Your task to perform on an android device: change the clock display to digital Image 0: 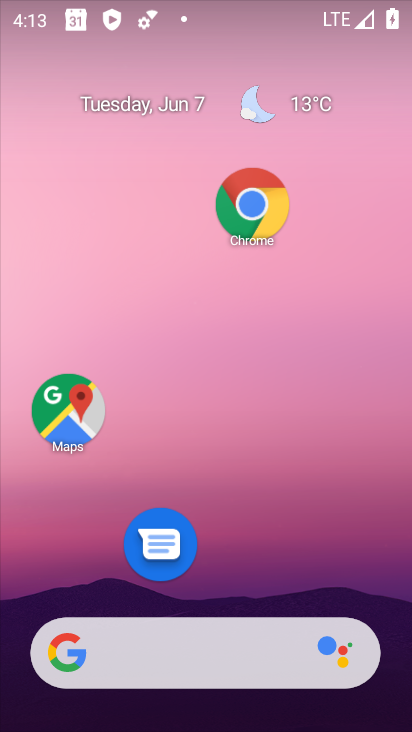
Step 0: drag from (253, 587) to (261, 26)
Your task to perform on an android device: change the clock display to digital Image 1: 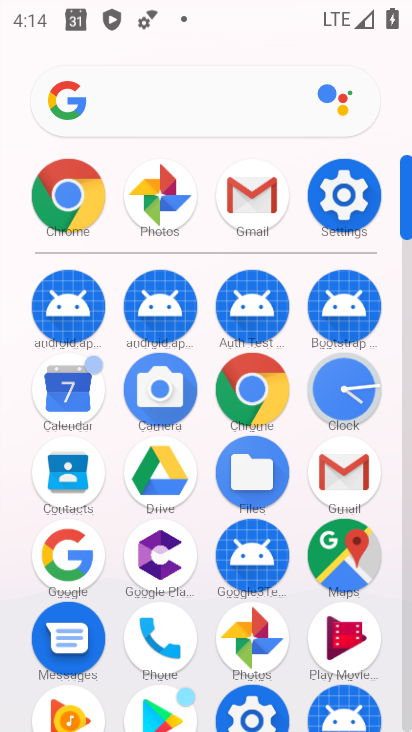
Step 1: click (342, 382)
Your task to perform on an android device: change the clock display to digital Image 2: 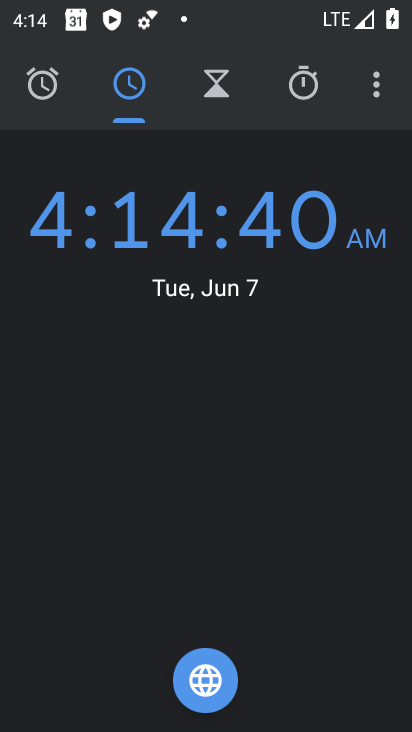
Step 2: click (378, 84)
Your task to perform on an android device: change the clock display to digital Image 3: 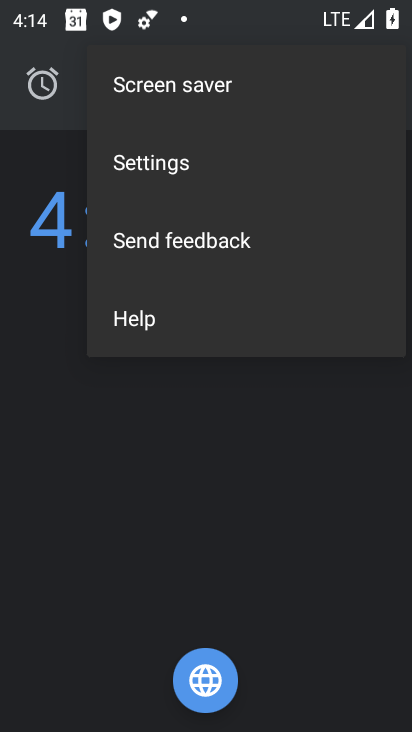
Step 3: click (201, 162)
Your task to perform on an android device: change the clock display to digital Image 4: 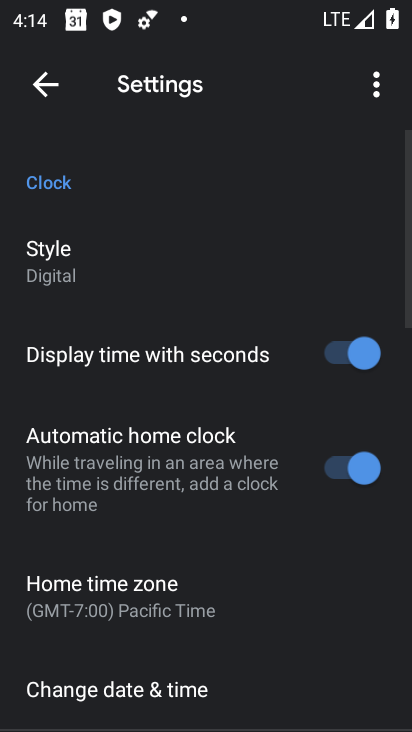
Step 4: click (119, 257)
Your task to perform on an android device: change the clock display to digital Image 5: 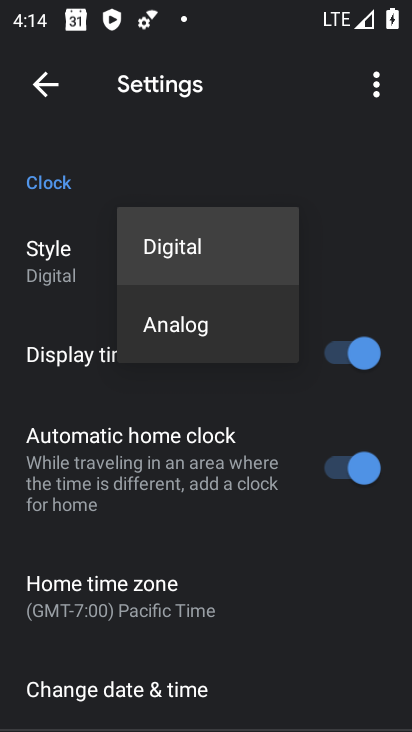
Step 5: click (203, 249)
Your task to perform on an android device: change the clock display to digital Image 6: 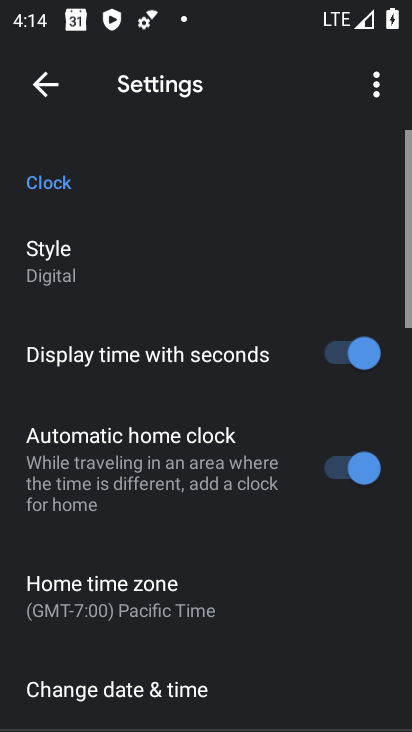
Step 6: task complete